Your task to perform on an android device: Toggle the flashlight Image 0: 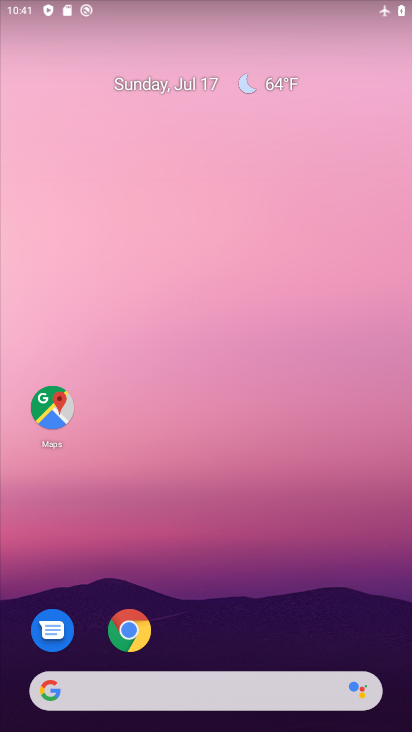
Step 0: drag from (219, 14) to (210, 403)
Your task to perform on an android device: Toggle the flashlight Image 1: 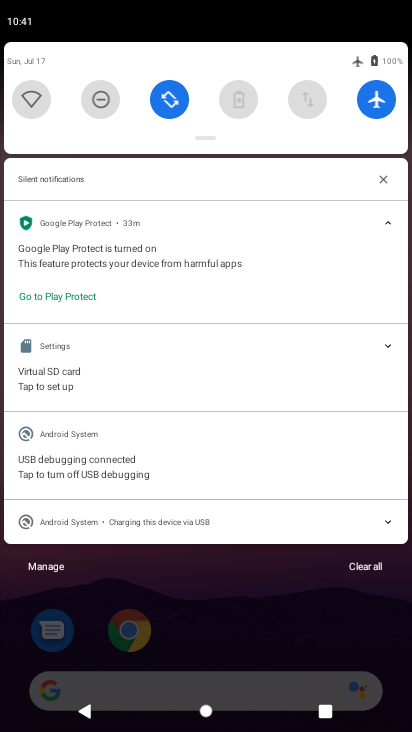
Step 1: drag from (212, 146) to (215, 461)
Your task to perform on an android device: Toggle the flashlight Image 2: 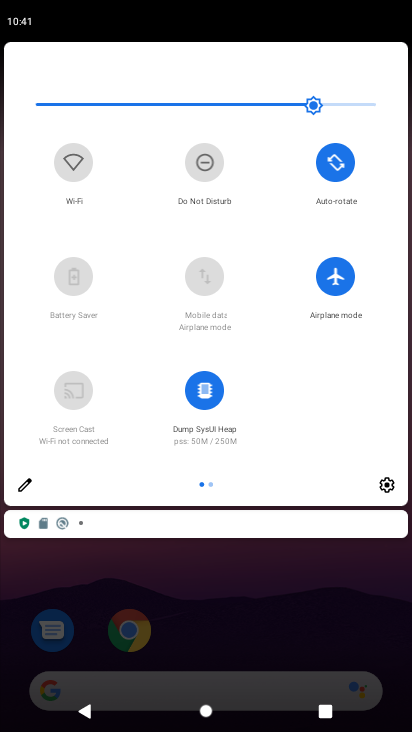
Step 2: click (23, 482)
Your task to perform on an android device: Toggle the flashlight Image 3: 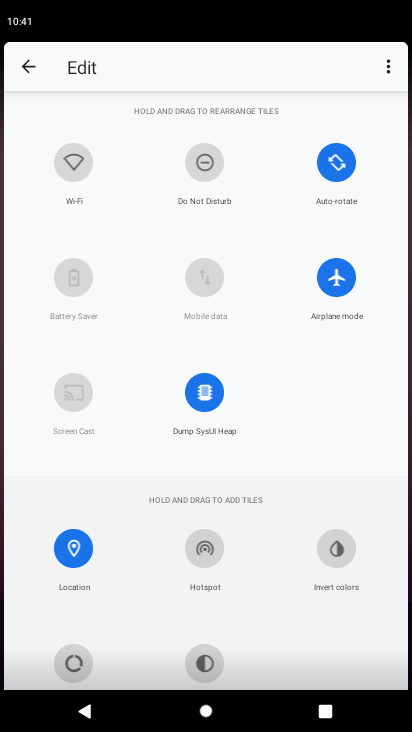
Step 3: task complete